Your task to perform on an android device: change notifications settings Image 0: 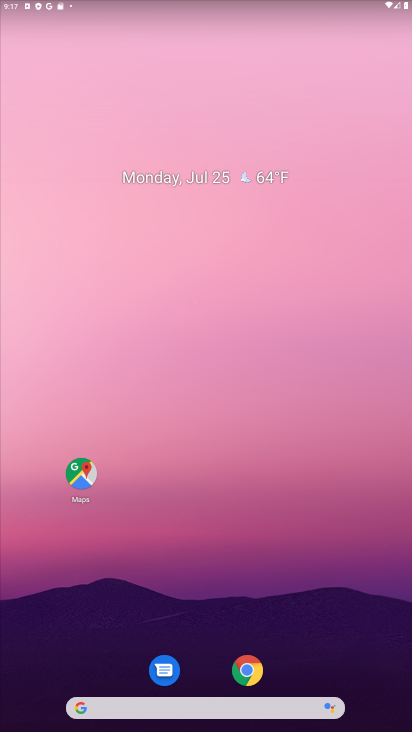
Step 0: drag from (366, 667) to (208, 50)
Your task to perform on an android device: change notifications settings Image 1: 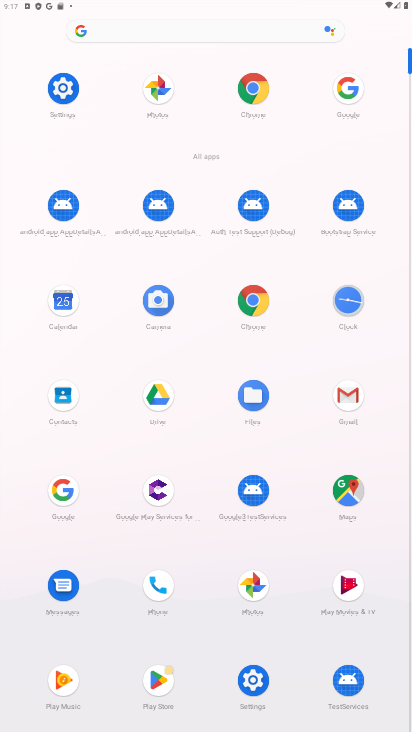
Step 1: click (61, 97)
Your task to perform on an android device: change notifications settings Image 2: 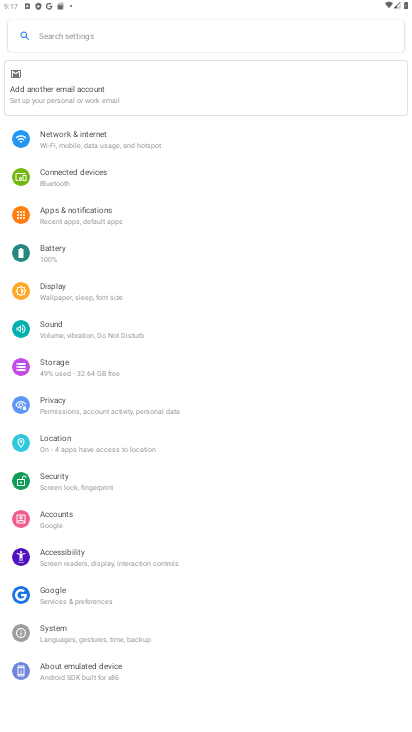
Step 2: click (112, 228)
Your task to perform on an android device: change notifications settings Image 3: 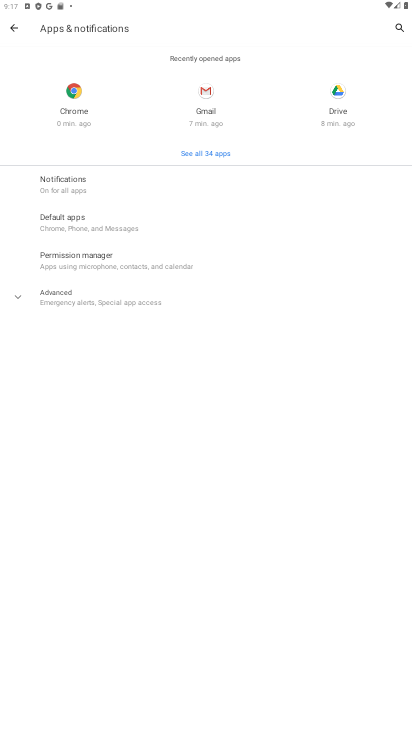
Step 3: click (76, 197)
Your task to perform on an android device: change notifications settings Image 4: 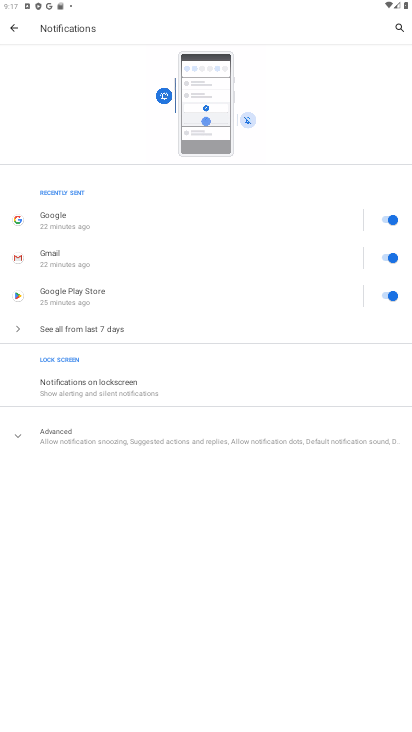
Step 4: task complete